Your task to perform on an android device: Do I have any events this weekend? Image 0: 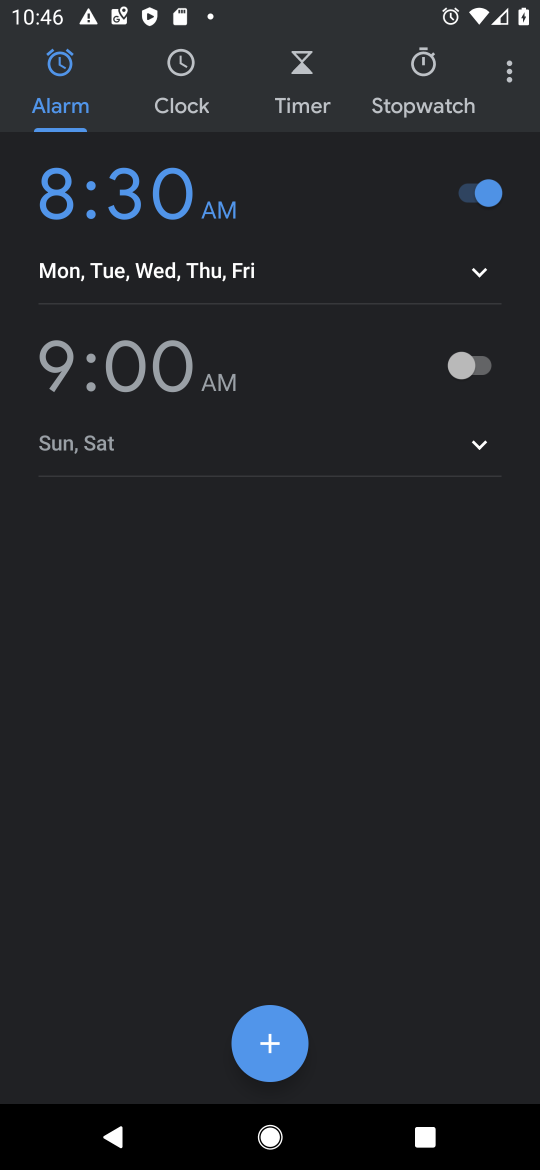
Step 0: press home button
Your task to perform on an android device: Do I have any events this weekend? Image 1: 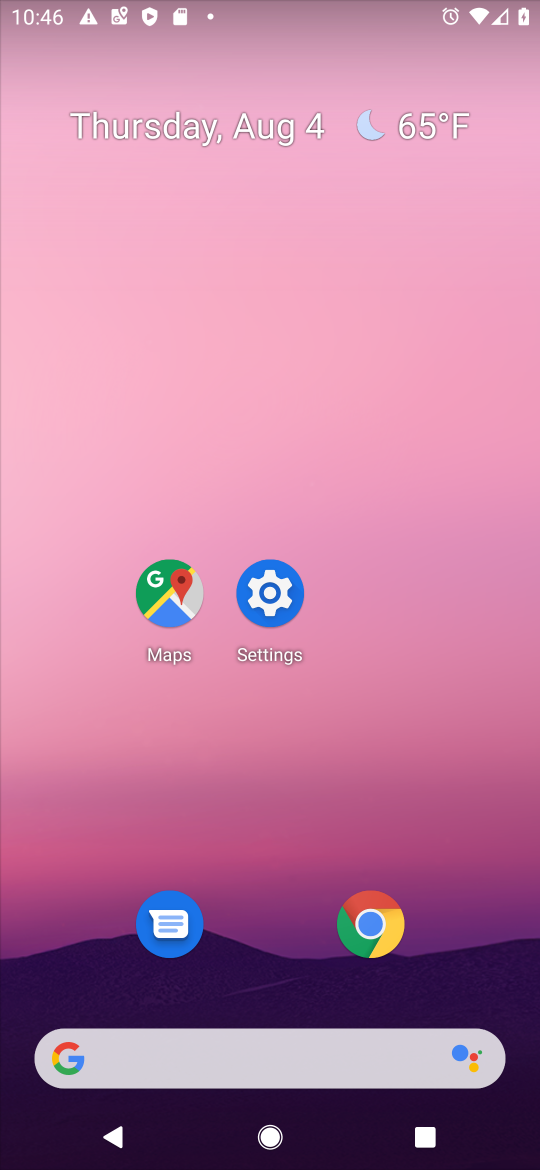
Step 1: drag from (274, 587) to (410, 608)
Your task to perform on an android device: Do I have any events this weekend? Image 2: 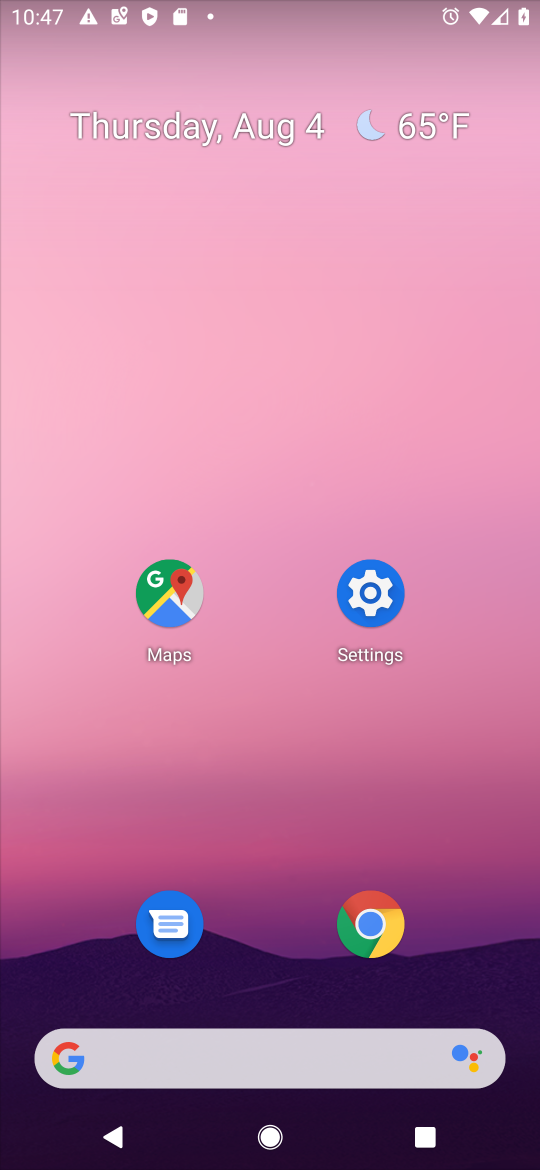
Step 2: drag from (157, 1060) to (331, 225)
Your task to perform on an android device: Do I have any events this weekend? Image 3: 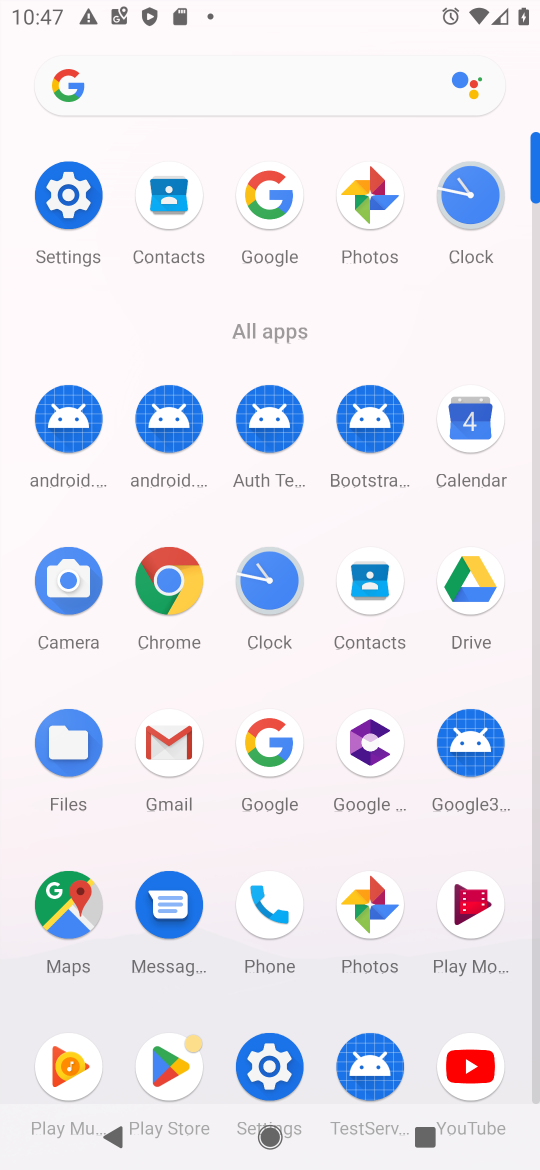
Step 3: click (473, 424)
Your task to perform on an android device: Do I have any events this weekend? Image 4: 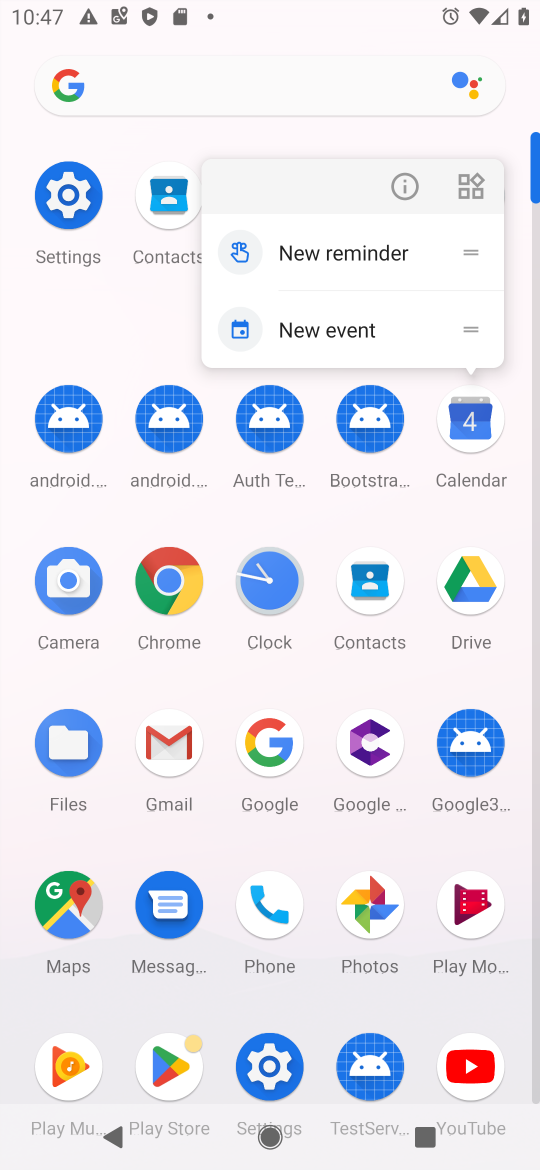
Step 4: click (473, 425)
Your task to perform on an android device: Do I have any events this weekend? Image 5: 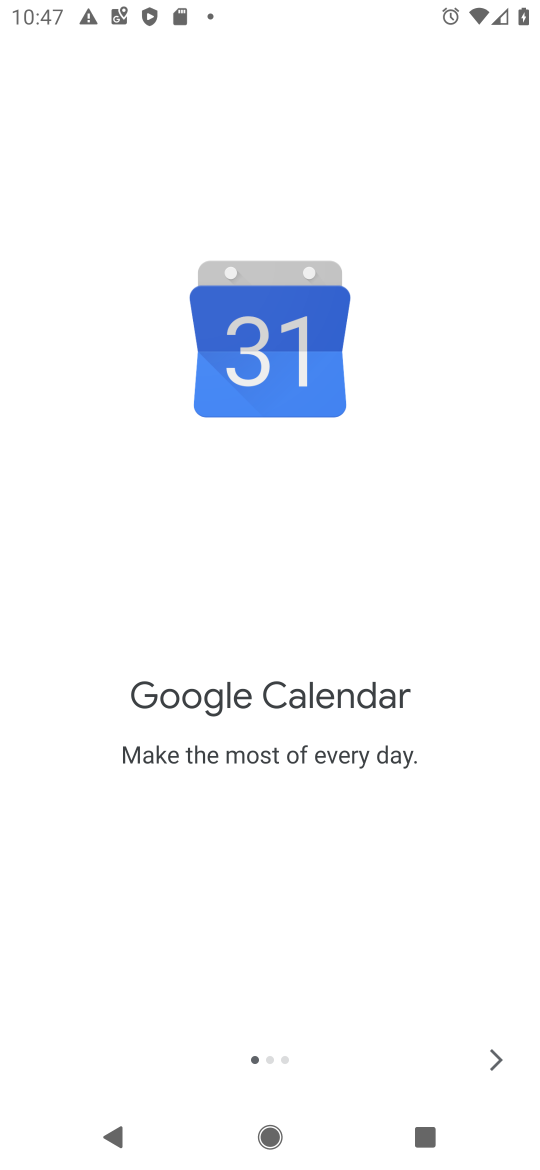
Step 5: click (499, 1048)
Your task to perform on an android device: Do I have any events this weekend? Image 6: 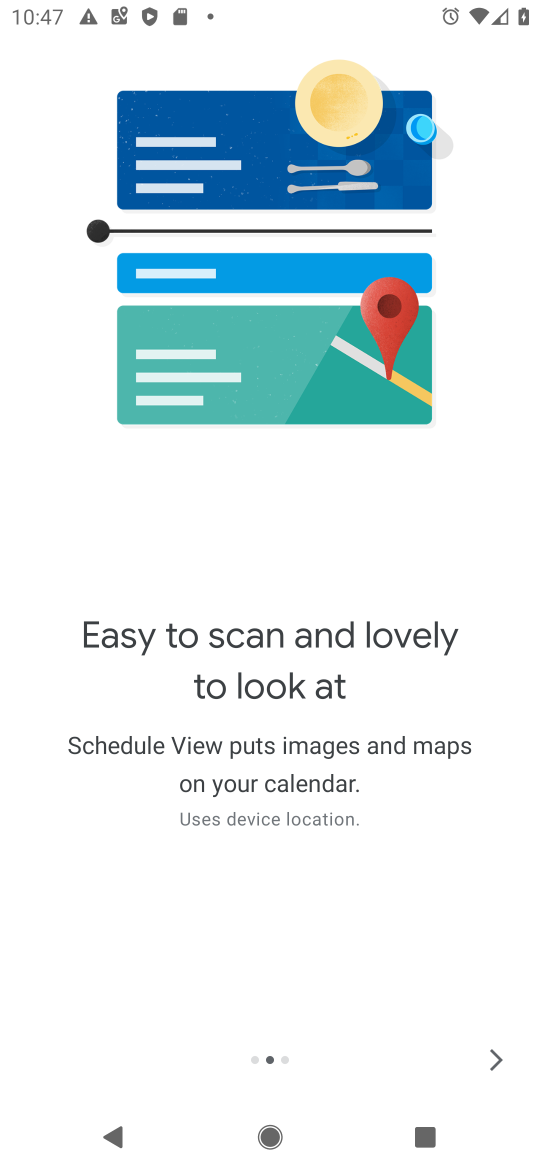
Step 6: click (499, 1051)
Your task to perform on an android device: Do I have any events this weekend? Image 7: 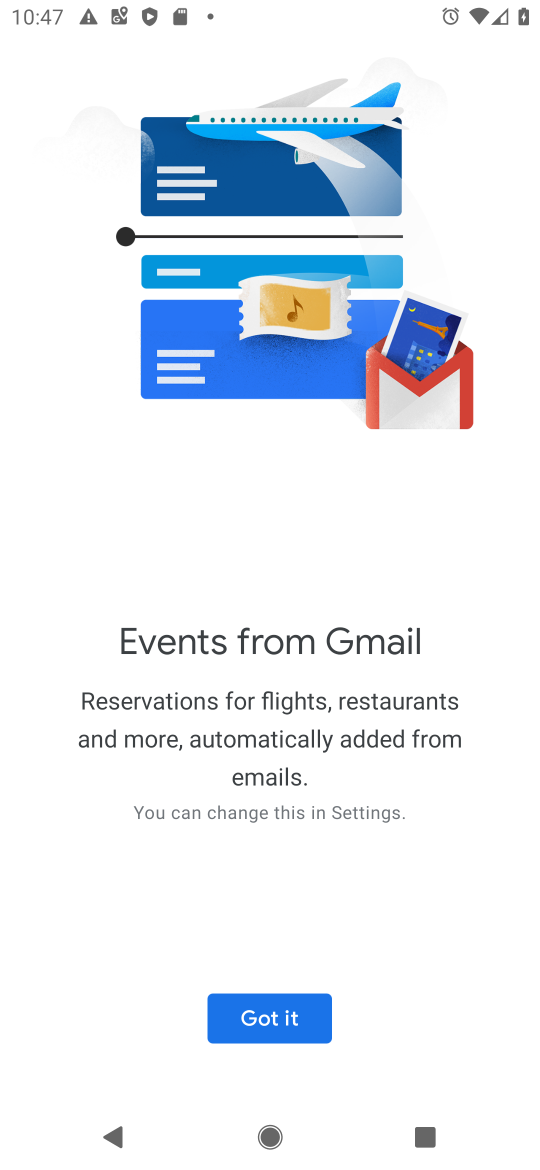
Step 7: click (251, 1014)
Your task to perform on an android device: Do I have any events this weekend? Image 8: 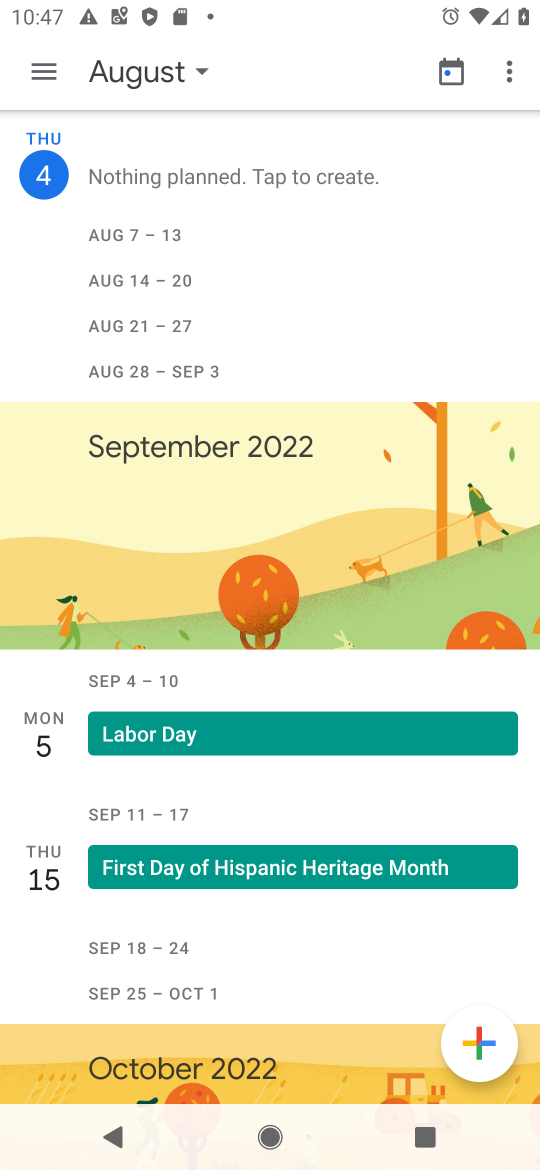
Step 8: click (150, 55)
Your task to perform on an android device: Do I have any events this weekend? Image 9: 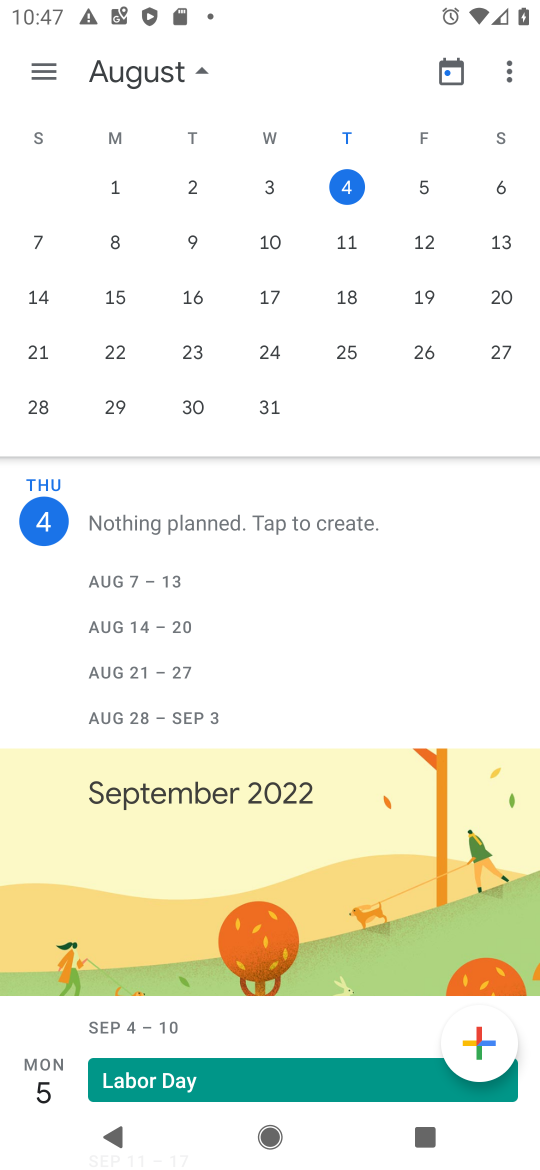
Step 9: click (493, 185)
Your task to perform on an android device: Do I have any events this weekend? Image 10: 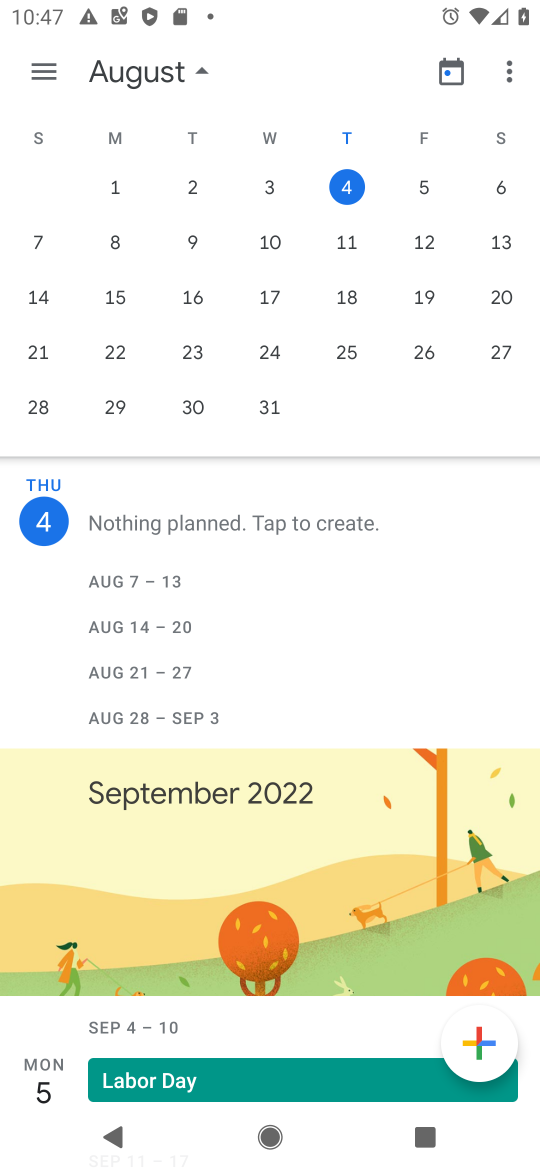
Step 10: click (500, 190)
Your task to perform on an android device: Do I have any events this weekend? Image 11: 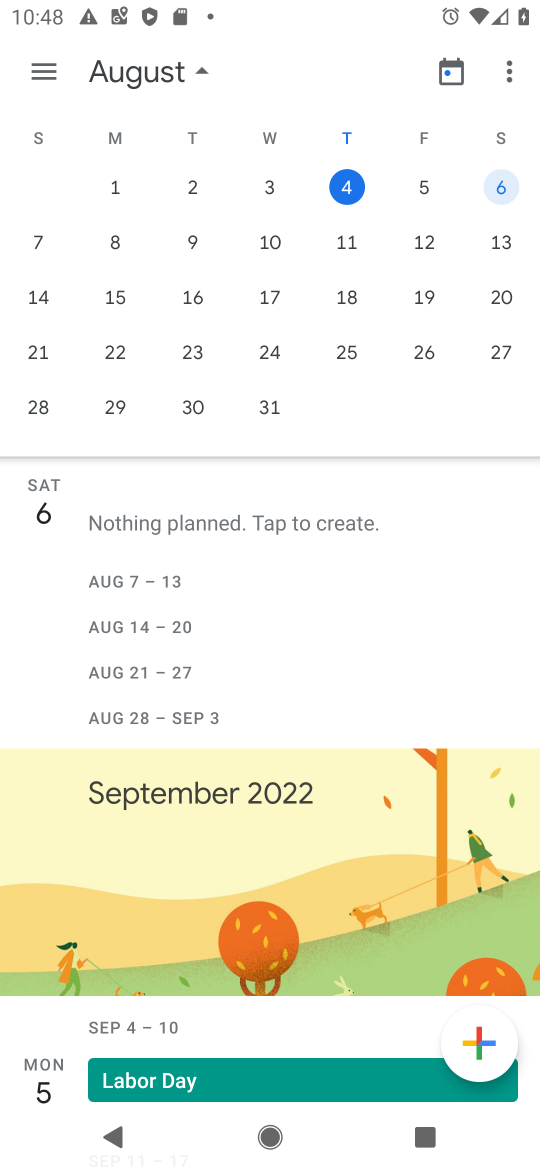
Step 11: click (38, 63)
Your task to perform on an android device: Do I have any events this weekend? Image 12: 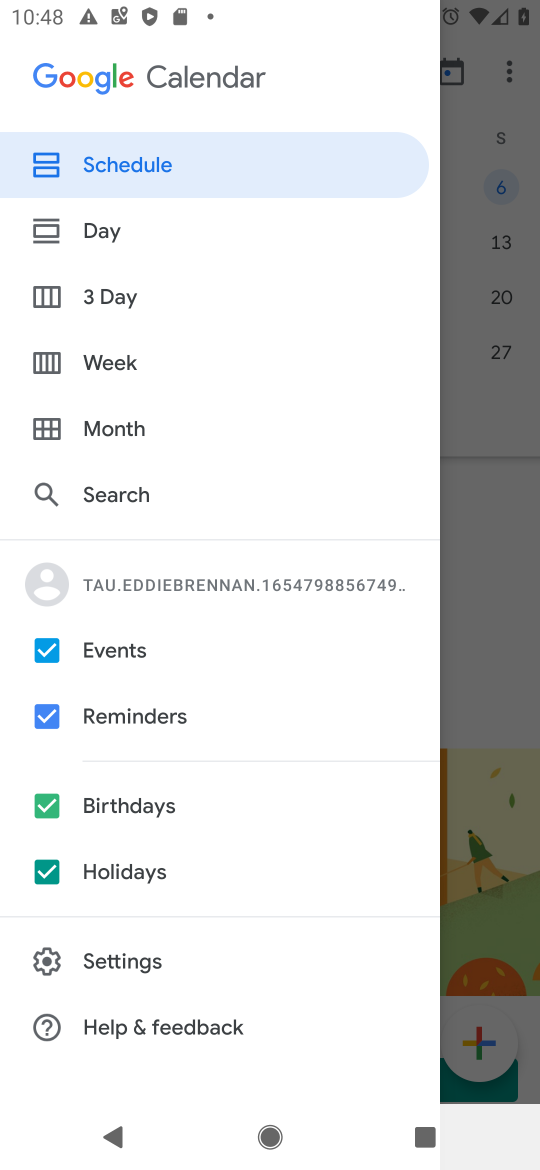
Step 12: click (79, 215)
Your task to perform on an android device: Do I have any events this weekend? Image 13: 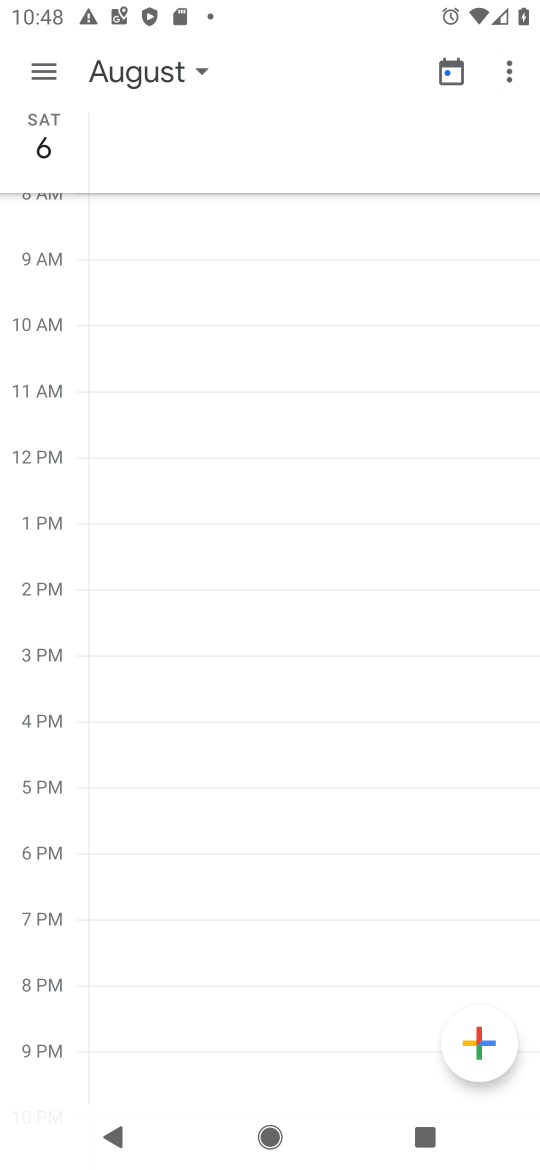
Step 13: click (35, 62)
Your task to perform on an android device: Do I have any events this weekend? Image 14: 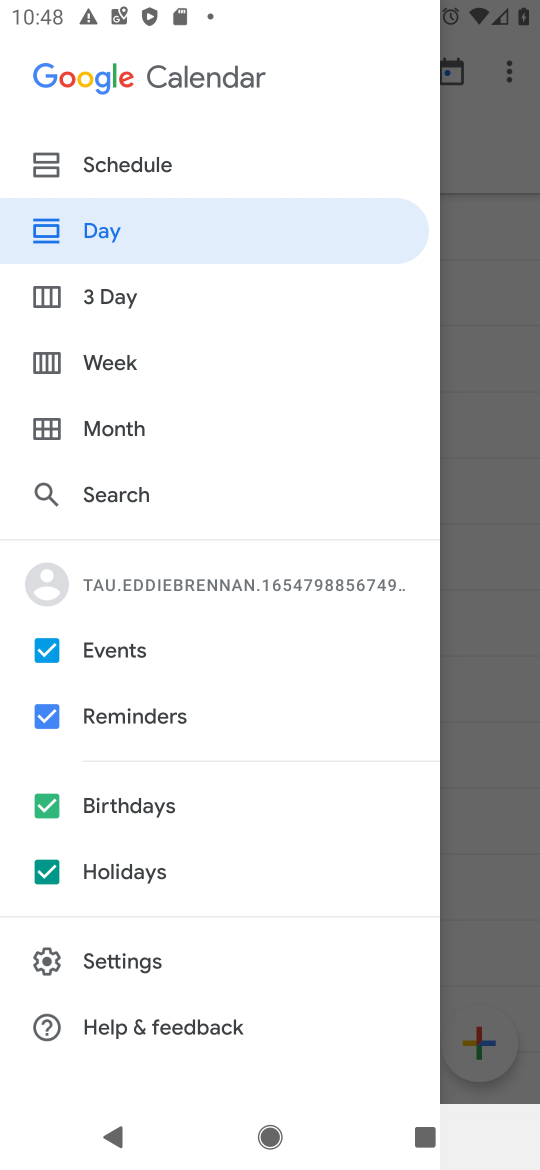
Step 14: click (129, 158)
Your task to perform on an android device: Do I have any events this weekend? Image 15: 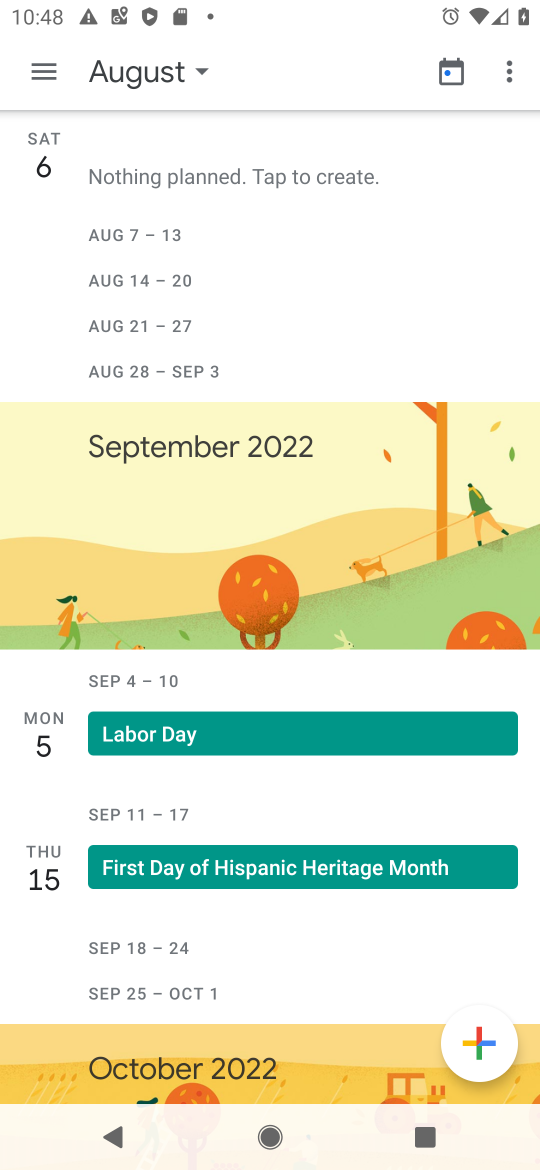
Step 15: task complete